Your task to perform on an android device: delete location history Image 0: 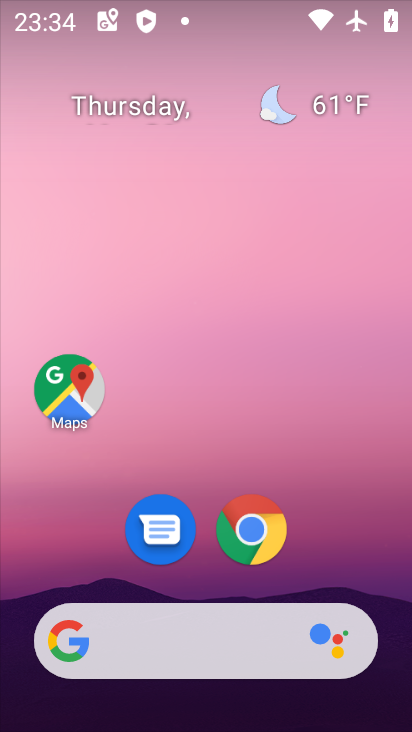
Step 0: drag from (365, 528) to (340, 49)
Your task to perform on an android device: delete location history Image 1: 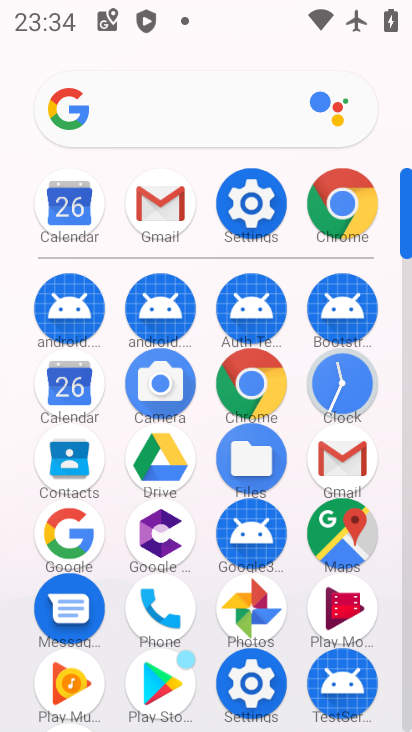
Step 1: click (259, 225)
Your task to perform on an android device: delete location history Image 2: 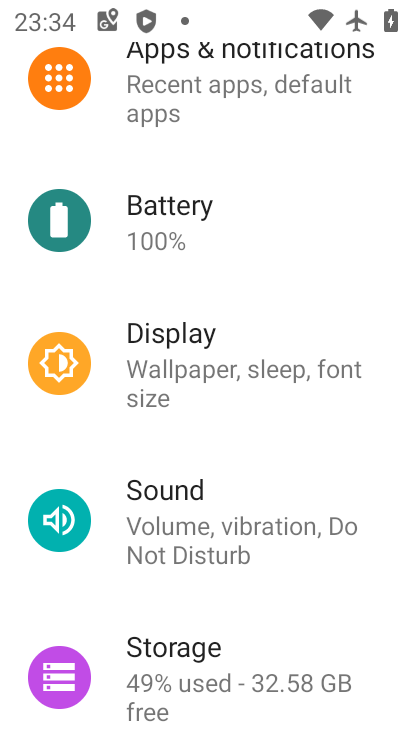
Step 2: drag from (220, 703) to (211, 189)
Your task to perform on an android device: delete location history Image 3: 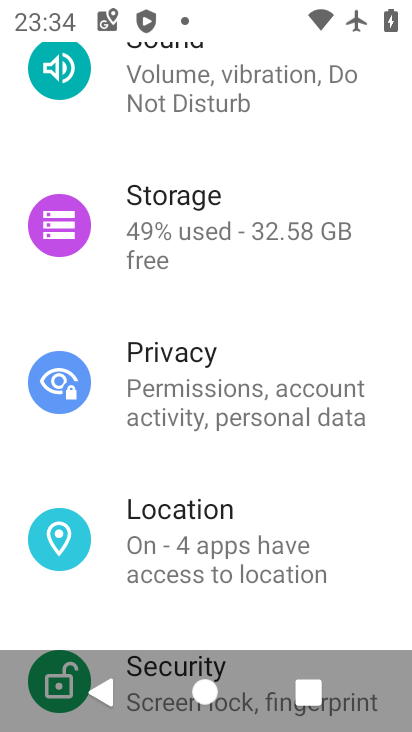
Step 3: click (216, 511)
Your task to perform on an android device: delete location history Image 4: 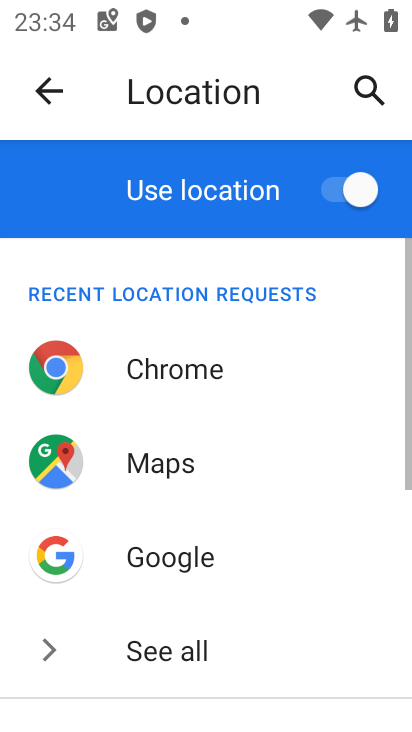
Step 4: drag from (216, 511) to (180, 176)
Your task to perform on an android device: delete location history Image 5: 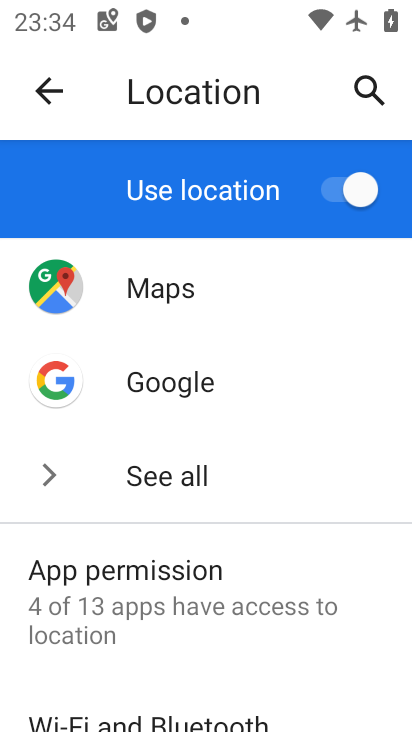
Step 5: drag from (162, 620) to (172, 264)
Your task to perform on an android device: delete location history Image 6: 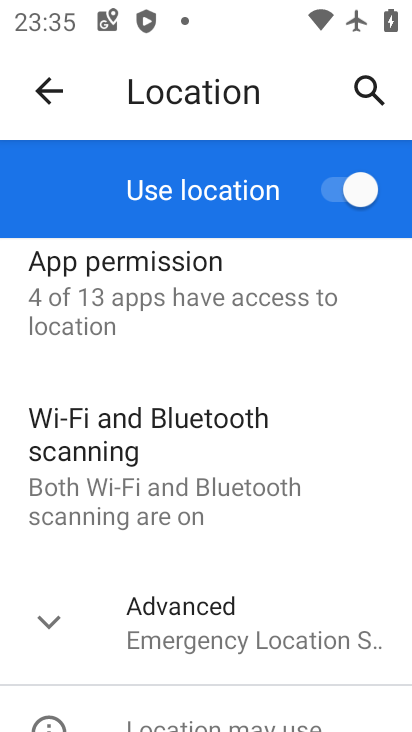
Step 6: drag from (220, 628) to (239, 429)
Your task to perform on an android device: delete location history Image 7: 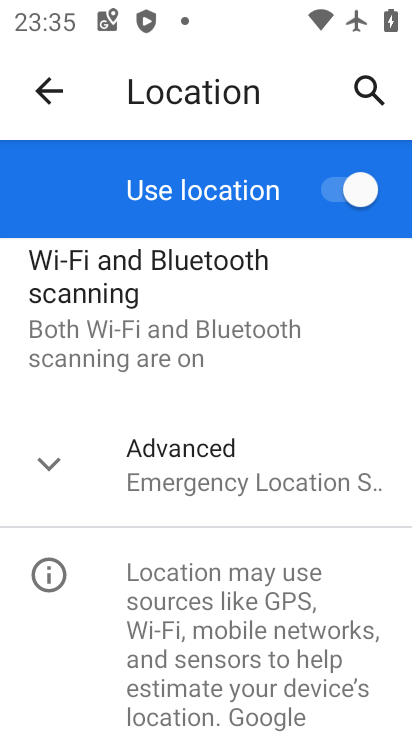
Step 7: click (218, 461)
Your task to perform on an android device: delete location history Image 8: 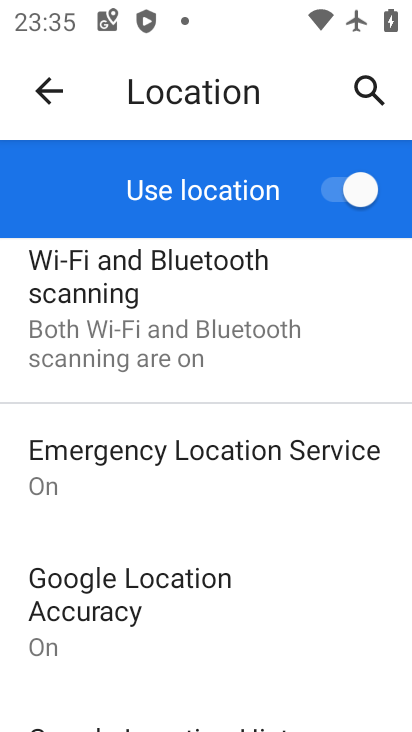
Step 8: drag from (247, 581) to (239, 432)
Your task to perform on an android device: delete location history Image 9: 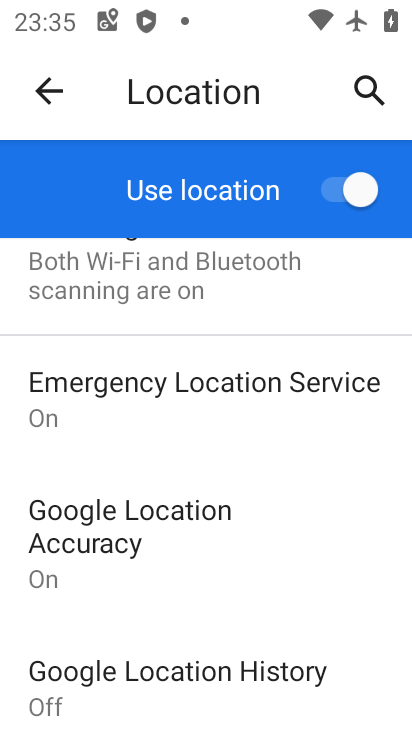
Step 9: click (185, 659)
Your task to perform on an android device: delete location history Image 10: 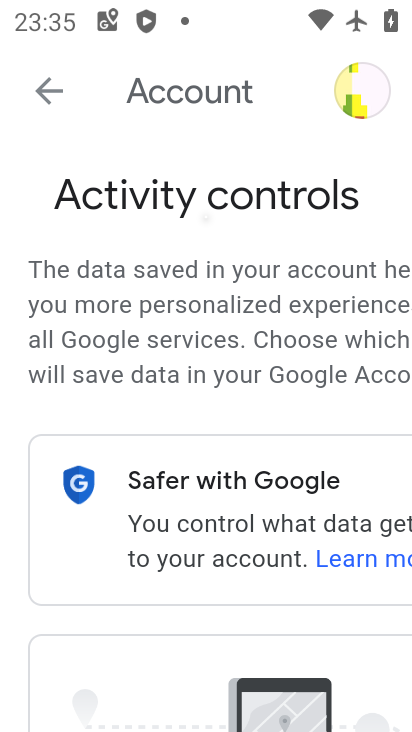
Step 10: task complete